Your task to perform on an android device: Show me productivity apps on the Play Store Image 0: 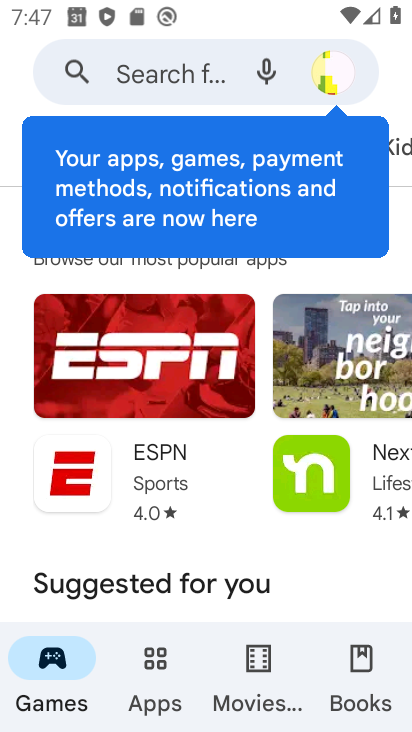
Step 0: press home button
Your task to perform on an android device: Show me productivity apps on the Play Store Image 1: 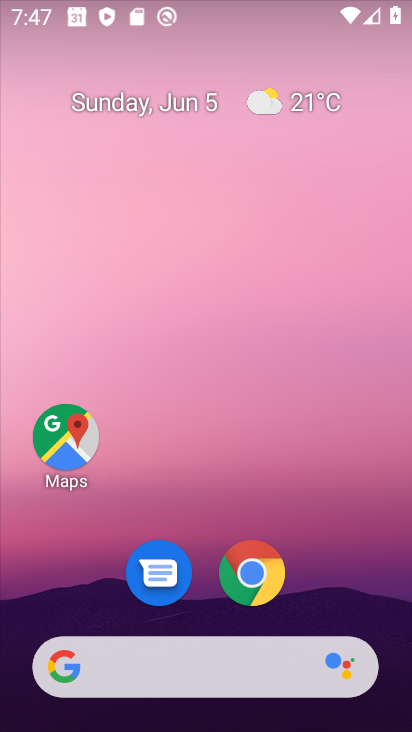
Step 1: drag from (206, 566) to (204, 290)
Your task to perform on an android device: Show me productivity apps on the Play Store Image 2: 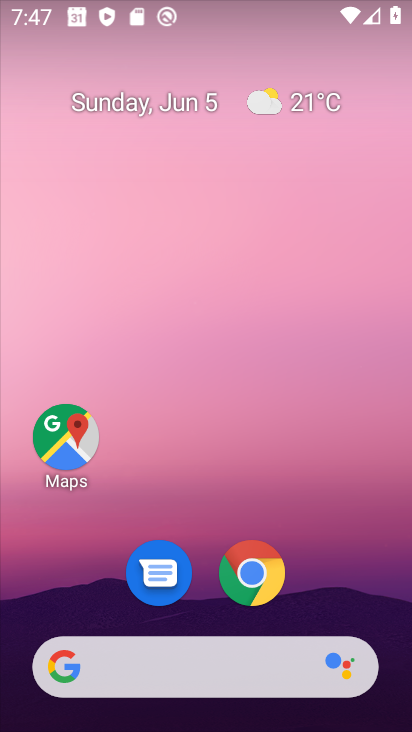
Step 2: drag from (212, 590) to (207, 234)
Your task to perform on an android device: Show me productivity apps on the Play Store Image 3: 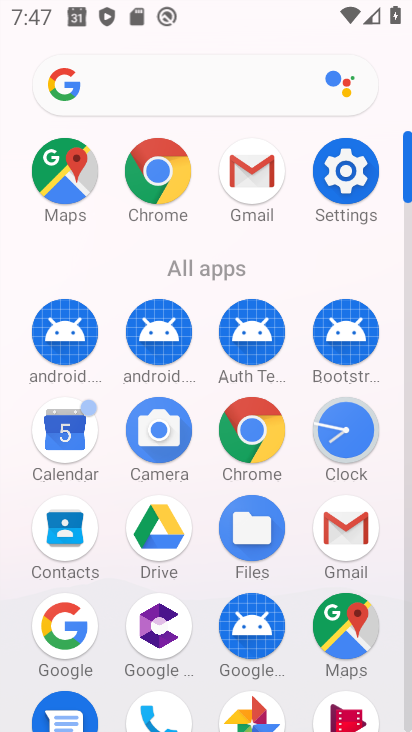
Step 3: drag from (209, 622) to (215, 236)
Your task to perform on an android device: Show me productivity apps on the Play Store Image 4: 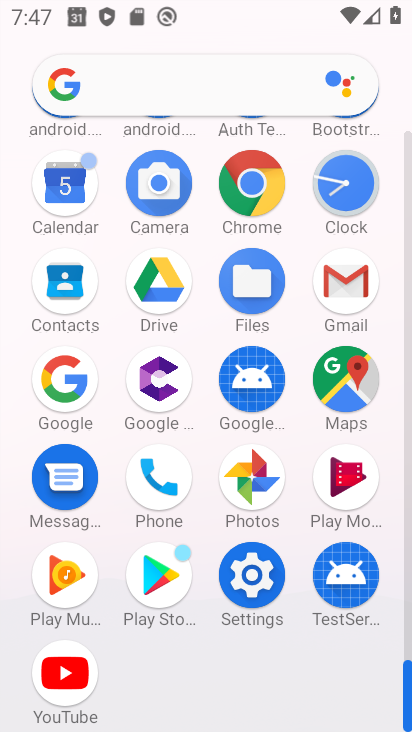
Step 4: click (149, 563)
Your task to perform on an android device: Show me productivity apps on the Play Store Image 5: 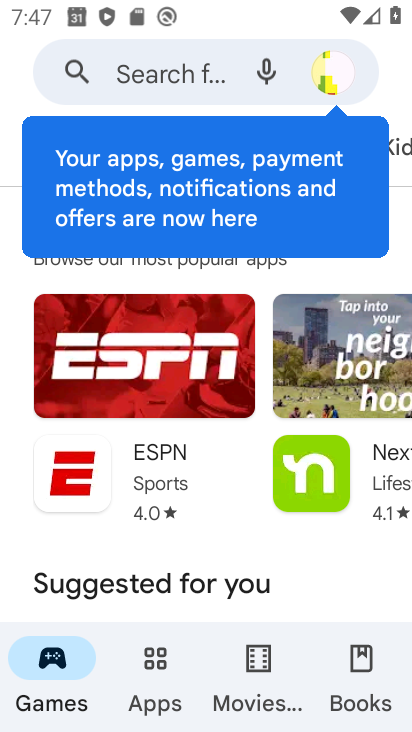
Step 5: click (150, 668)
Your task to perform on an android device: Show me productivity apps on the Play Store Image 6: 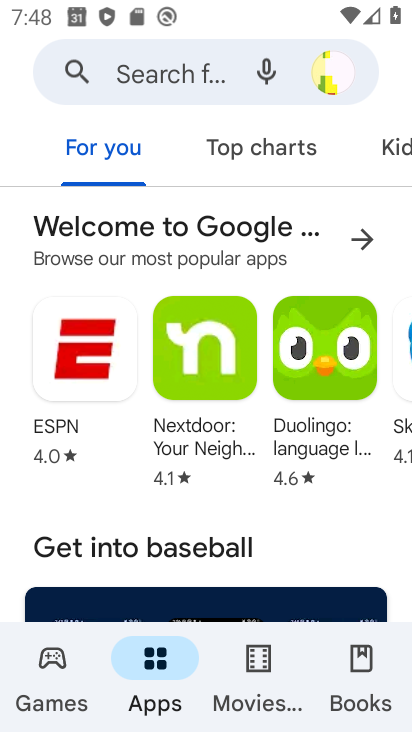
Step 6: task complete